Your task to perform on an android device: find snoozed emails in the gmail app Image 0: 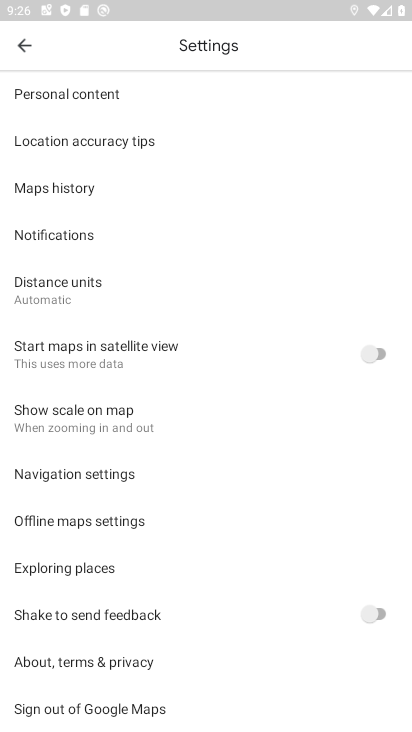
Step 0: drag from (245, 632) to (230, 477)
Your task to perform on an android device: find snoozed emails in the gmail app Image 1: 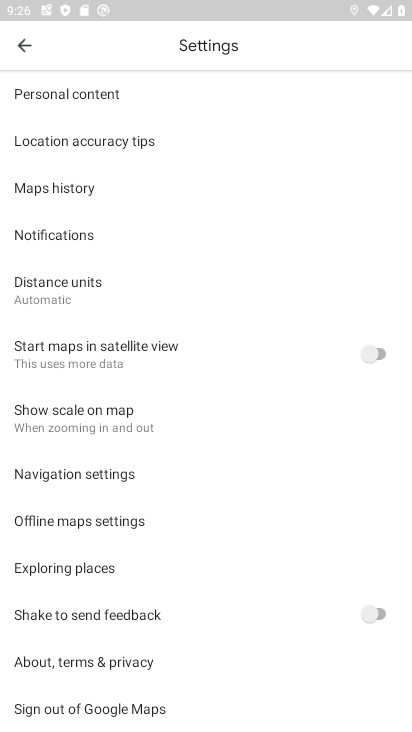
Step 1: drag from (179, 624) to (182, 469)
Your task to perform on an android device: find snoozed emails in the gmail app Image 2: 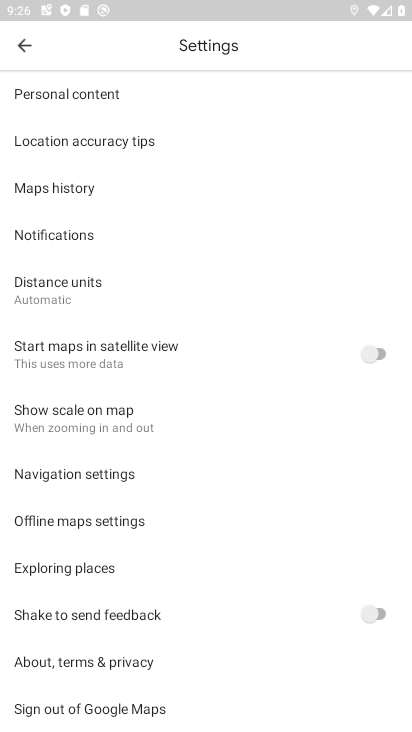
Step 2: drag from (130, 201) to (101, 434)
Your task to perform on an android device: find snoozed emails in the gmail app Image 3: 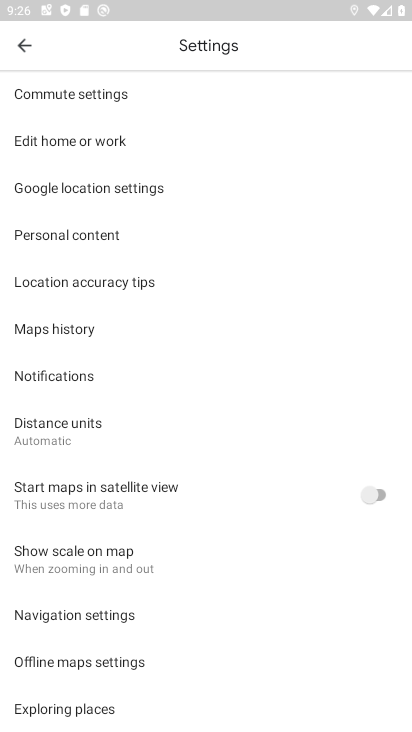
Step 3: press home button
Your task to perform on an android device: find snoozed emails in the gmail app Image 4: 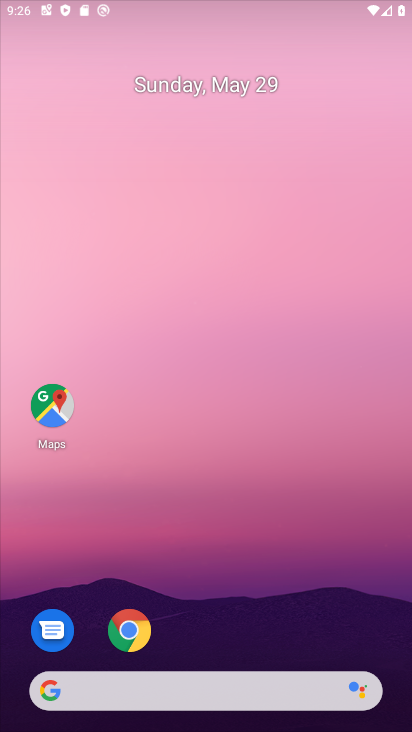
Step 4: drag from (183, 591) to (181, 95)
Your task to perform on an android device: find snoozed emails in the gmail app Image 5: 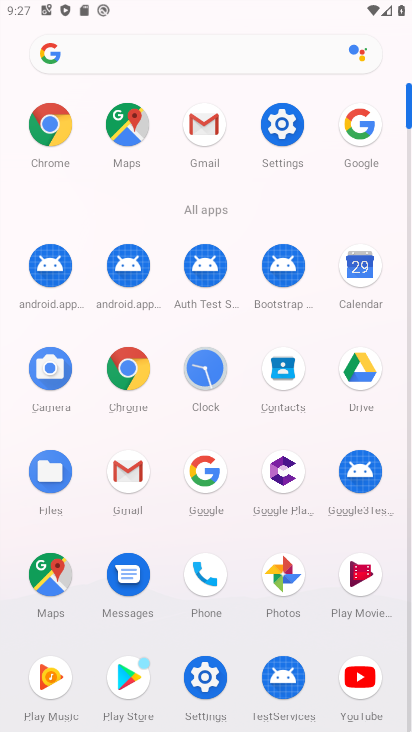
Step 5: click (128, 475)
Your task to perform on an android device: find snoozed emails in the gmail app Image 6: 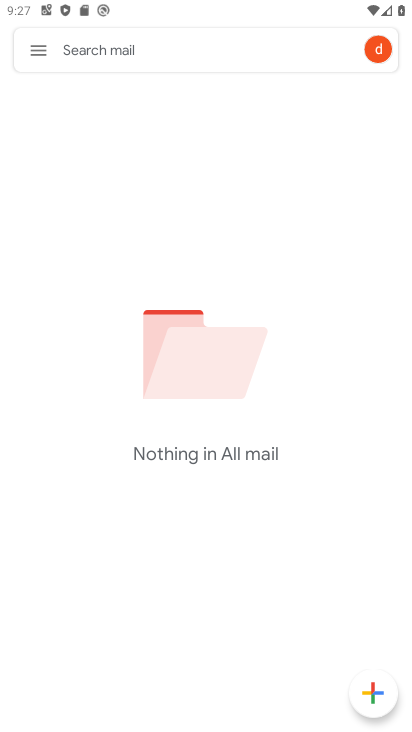
Step 6: click (38, 42)
Your task to perform on an android device: find snoozed emails in the gmail app Image 7: 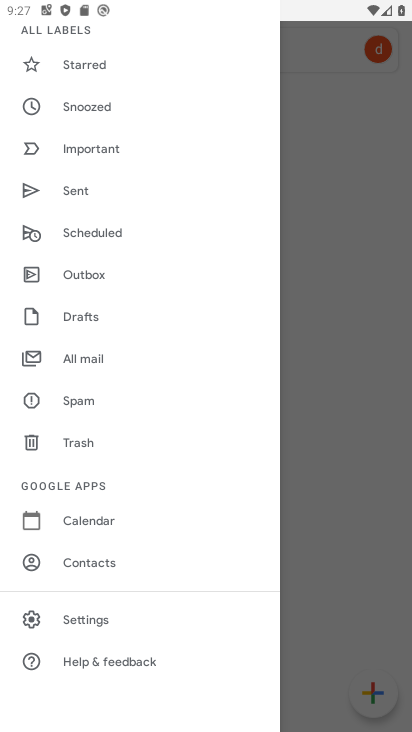
Step 7: click (114, 107)
Your task to perform on an android device: find snoozed emails in the gmail app Image 8: 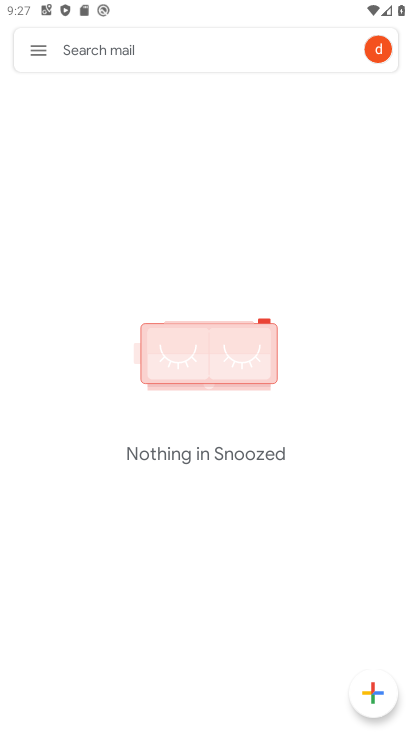
Step 8: task complete